Your task to perform on an android device: Search for bose soundlink mini on bestbuy.com, select the first entry, add it to the cart, then select checkout. Image 0: 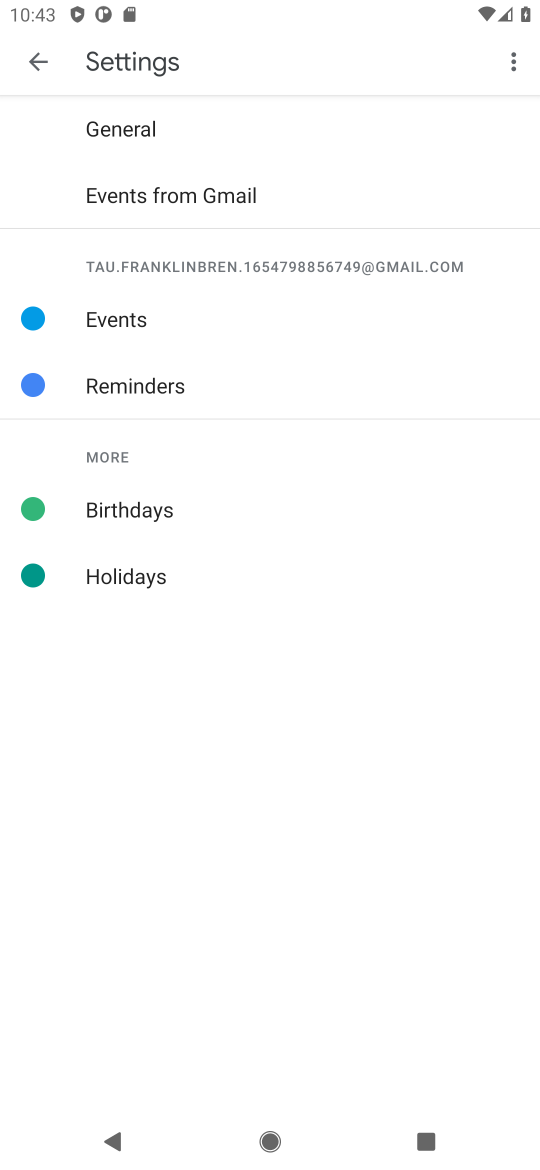
Step 0: press home button
Your task to perform on an android device: Search for bose soundlink mini on bestbuy.com, select the first entry, add it to the cart, then select checkout. Image 1: 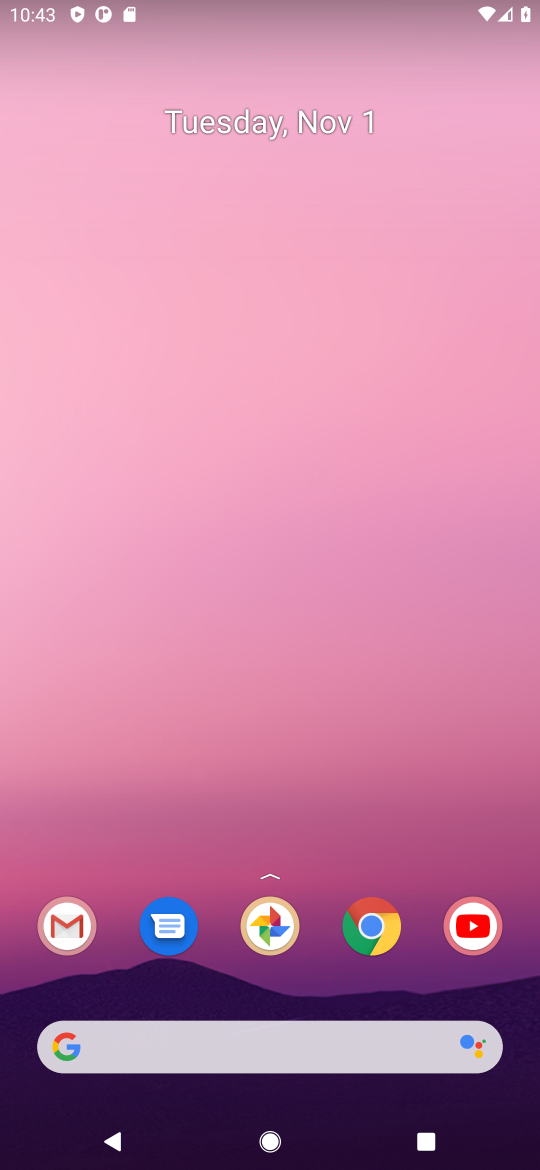
Step 1: click (361, 907)
Your task to perform on an android device: Search for bose soundlink mini on bestbuy.com, select the first entry, add it to the cart, then select checkout. Image 2: 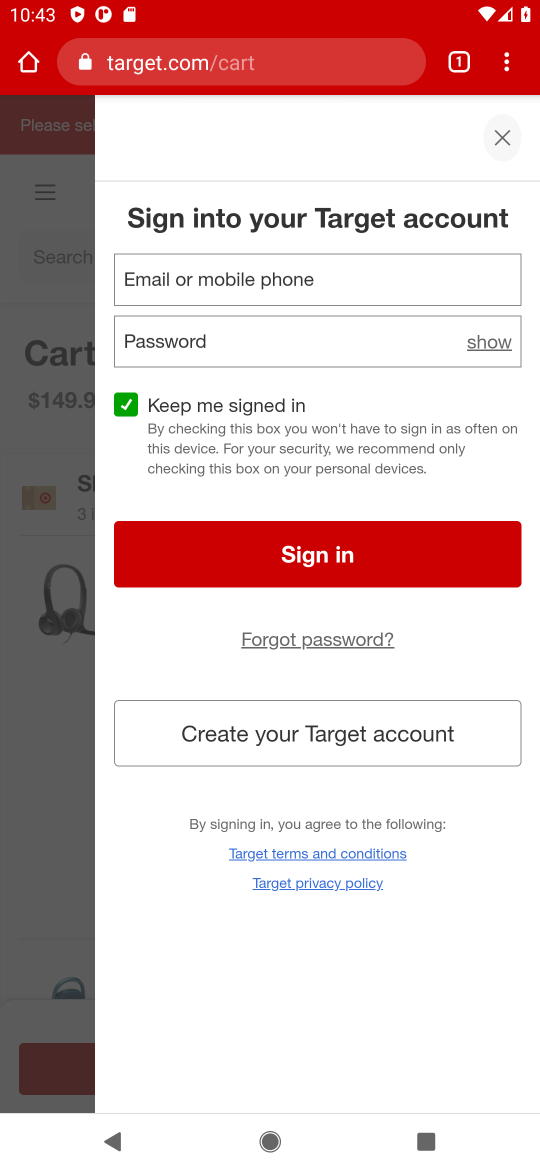
Step 2: click (237, 74)
Your task to perform on an android device: Search for bose soundlink mini on bestbuy.com, select the first entry, add it to the cart, then select checkout. Image 3: 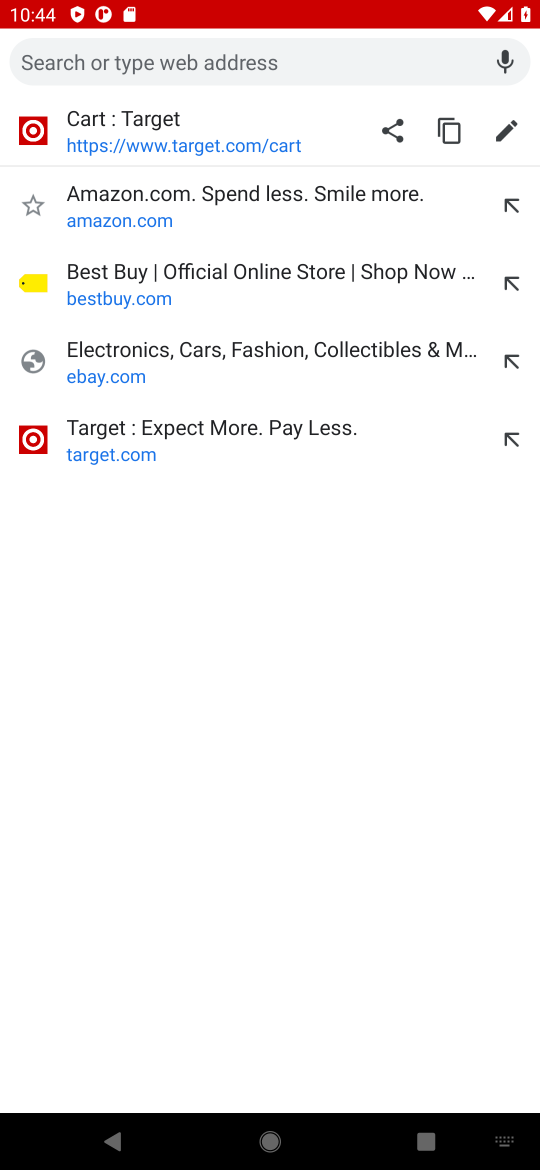
Step 3: type "bestbuy.com"
Your task to perform on an android device: Search for bose soundlink mini on bestbuy.com, select the first entry, add it to the cart, then select checkout. Image 4: 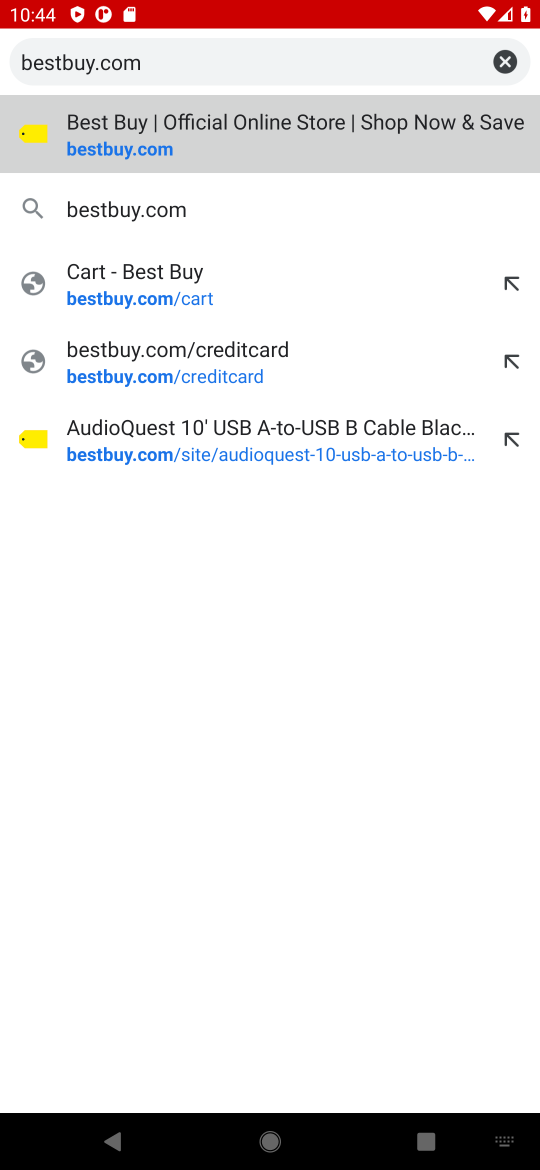
Step 4: type ""
Your task to perform on an android device: Search for bose soundlink mini on bestbuy.com, select the first entry, add it to the cart, then select checkout. Image 5: 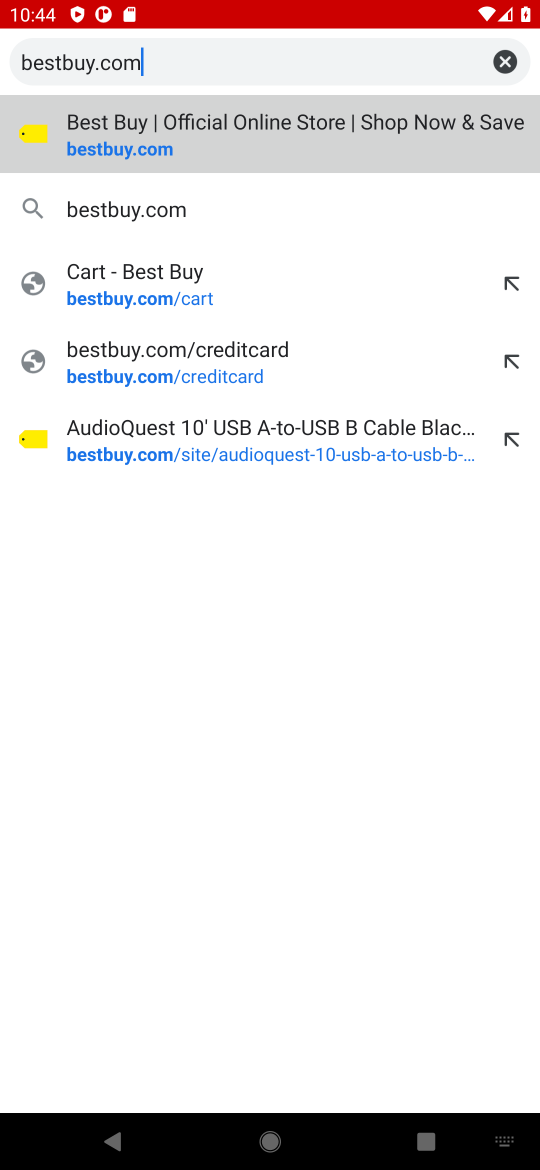
Step 5: click (134, 138)
Your task to perform on an android device: Search for bose soundlink mini on bestbuy.com, select the first entry, add it to the cart, then select checkout. Image 6: 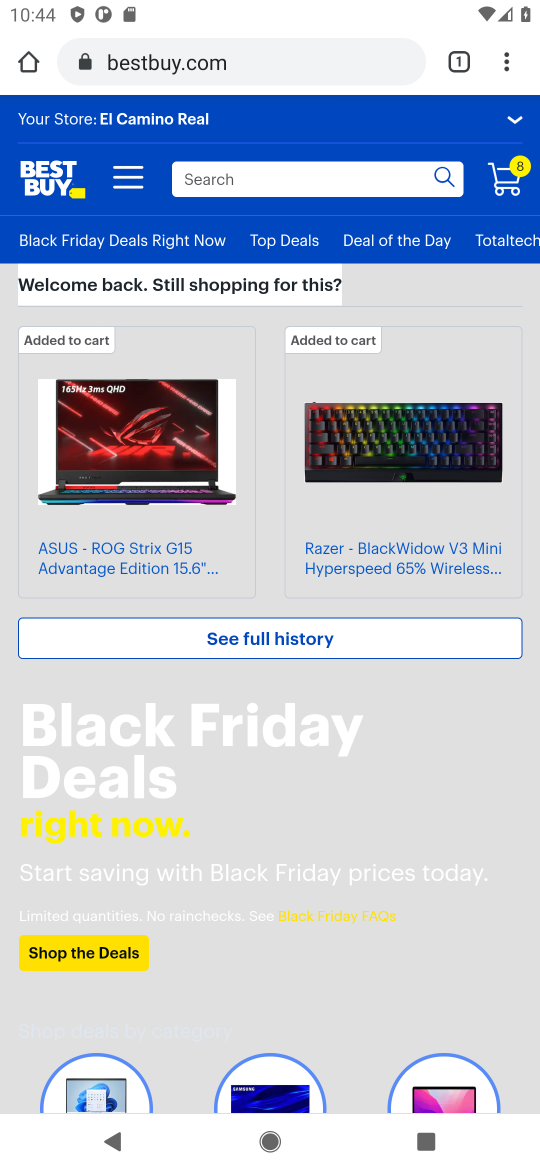
Step 6: click (212, 165)
Your task to perform on an android device: Search for bose soundlink mini on bestbuy.com, select the first entry, add it to the cart, then select checkout. Image 7: 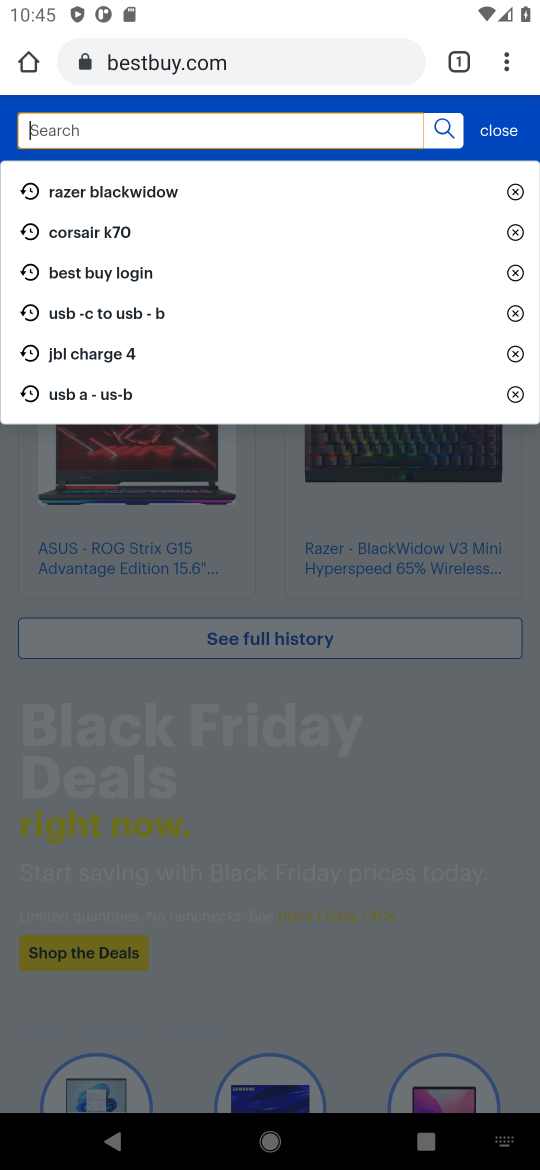
Step 7: type "bose soundlink mini"
Your task to perform on an android device: Search for bose soundlink mini on bestbuy.com, select the first entry, add it to the cart, then select checkout. Image 8: 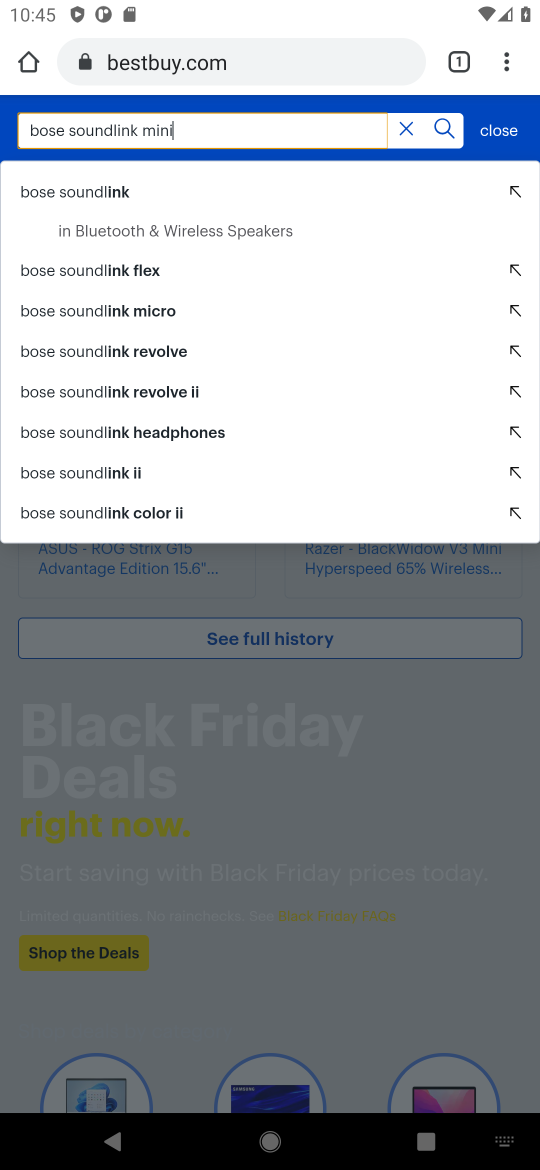
Step 8: type ""
Your task to perform on an android device: Search for bose soundlink mini on bestbuy.com, select the first entry, add it to the cart, then select checkout. Image 9: 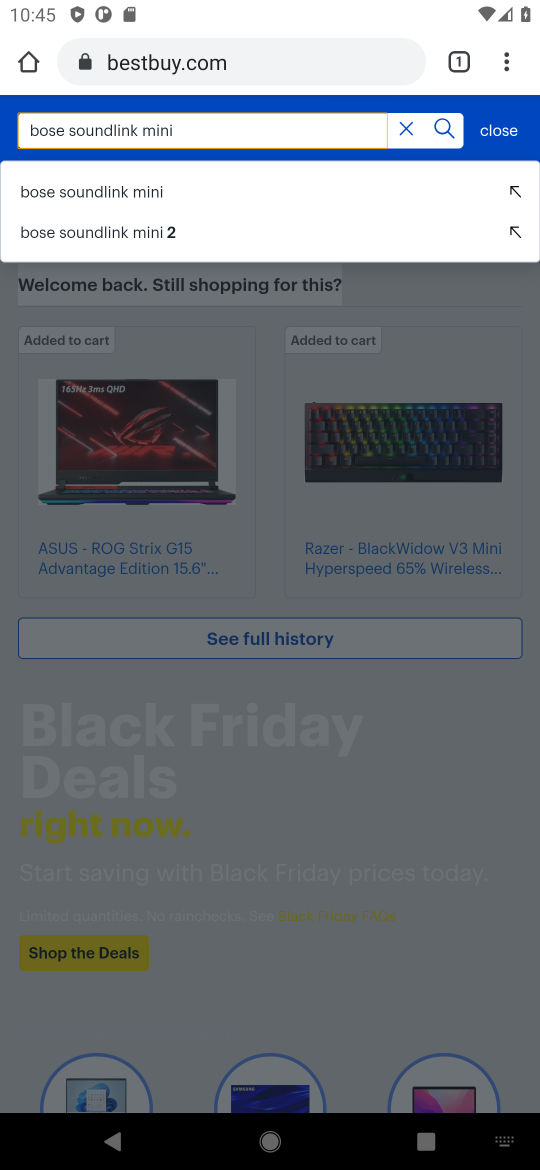
Step 9: click (168, 173)
Your task to perform on an android device: Search for bose soundlink mini on bestbuy.com, select the first entry, add it to the cart, then select checkout. Image 10: 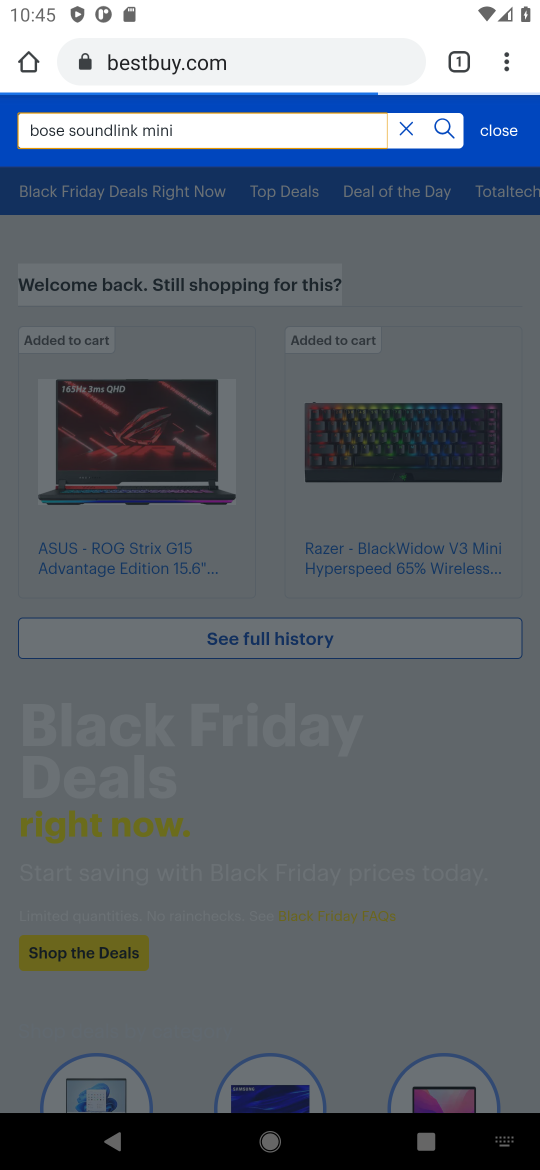
Step 10: click (69, 201)
Your task to perform on an android device: Search for bose soundlink mini on bestbuy.com, select the first entry, add it to the cart, then select checkout. Image 11: 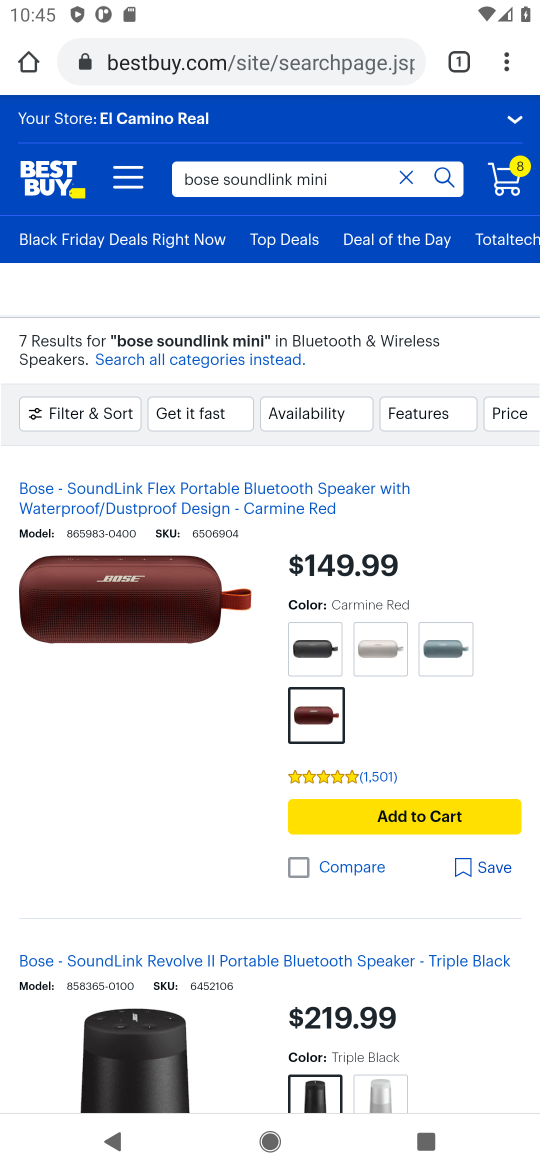
Step 11: drag from (172, 949) to (180, 461)
Your task to perform on an android device: Search for bose soundlink mini on bestbuy.com, select the first entry, add it to the cart, then select checkout. Image 12: 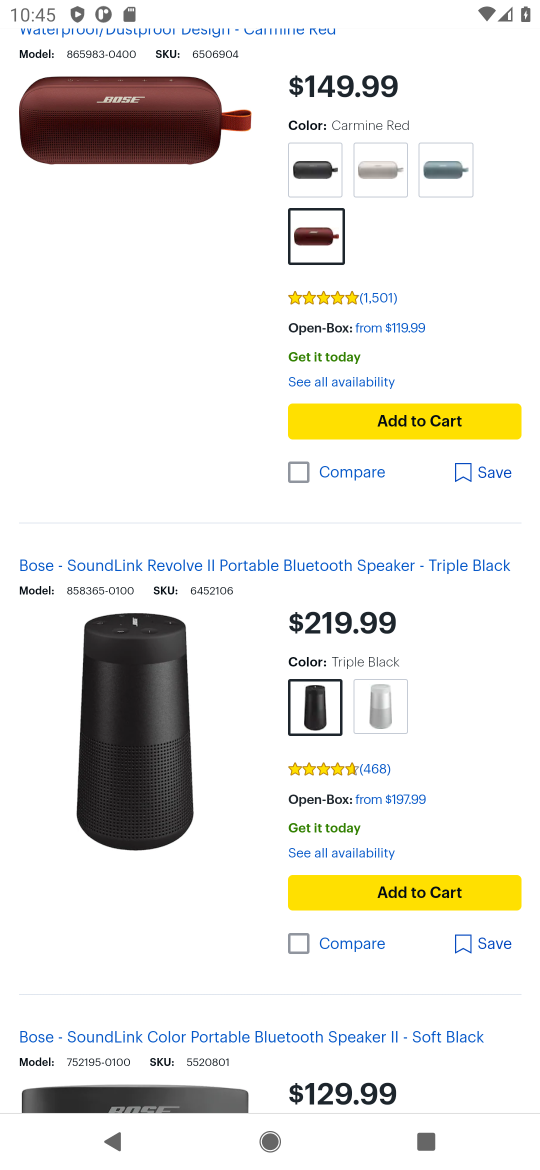
Step 12: drag from (162, 854) to (173, 781)
Your task to perform on an android device: Search for bose soundlink mini on bestbuy.com, select the first entry, add it to the cart, then select checkout. Image 13: 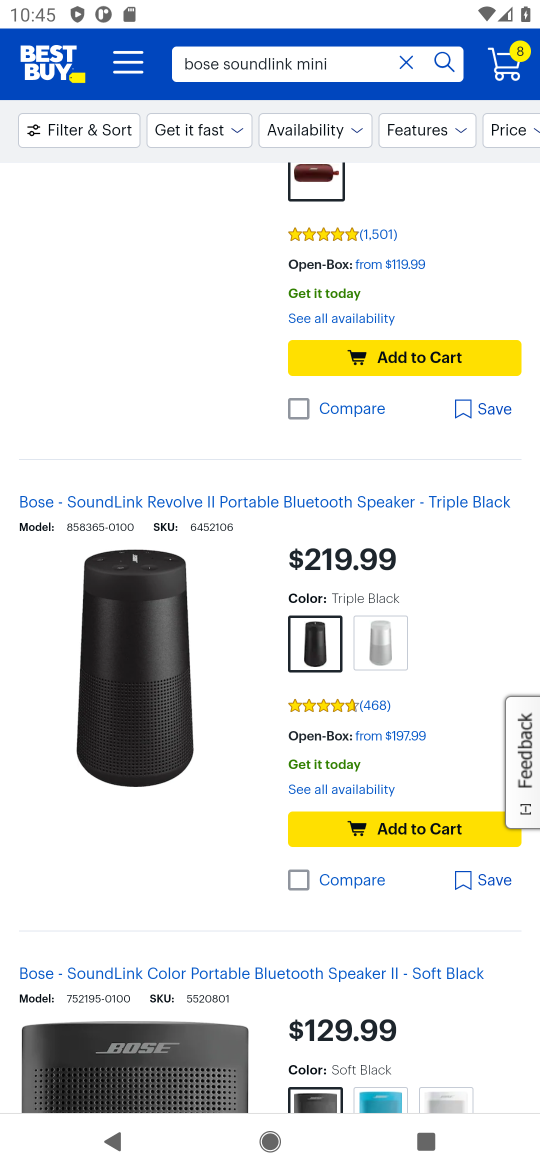
Step 13: drag from (219, 239) to (254, 776)
Your task to perform on an android device: Search for bose soundlink mini on bestbuy.com, select the first entry, add it to the cart, then select checkout. Image 14: 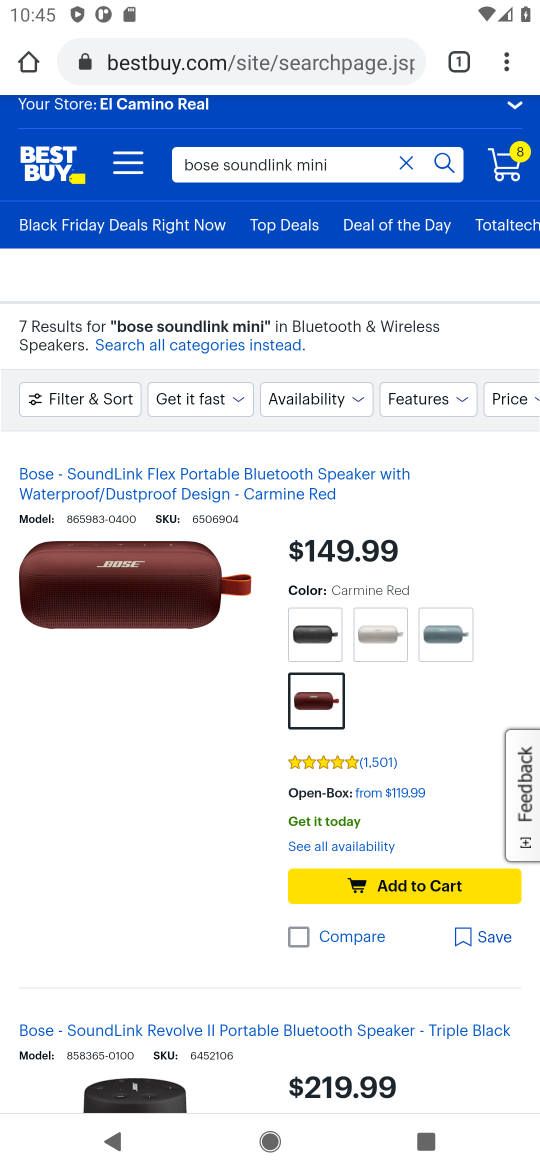
Step 14: click (141, 559)
Your task to perform on an android device: Search for bose soundlink mini on bestbuy.com, select the first entry, add it to the cart, then select checkout. Image 15: 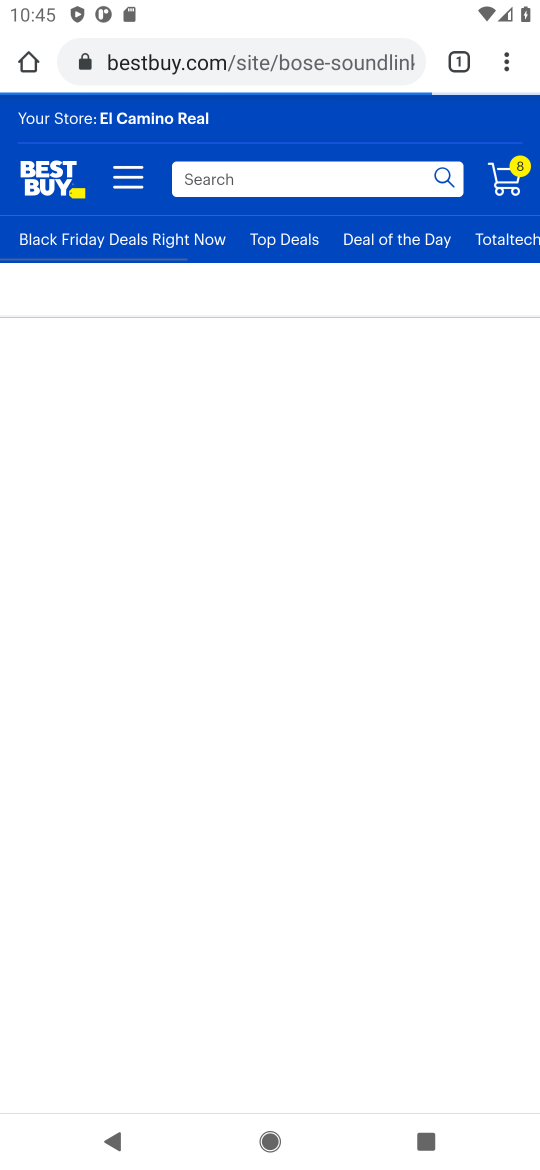
Step 15: click (69, 604)
Your task to perform on an android device: Search for bose soundlink mini on bestbuy.com, select the first entry, add it to the cart, then select checkout. Image 16: 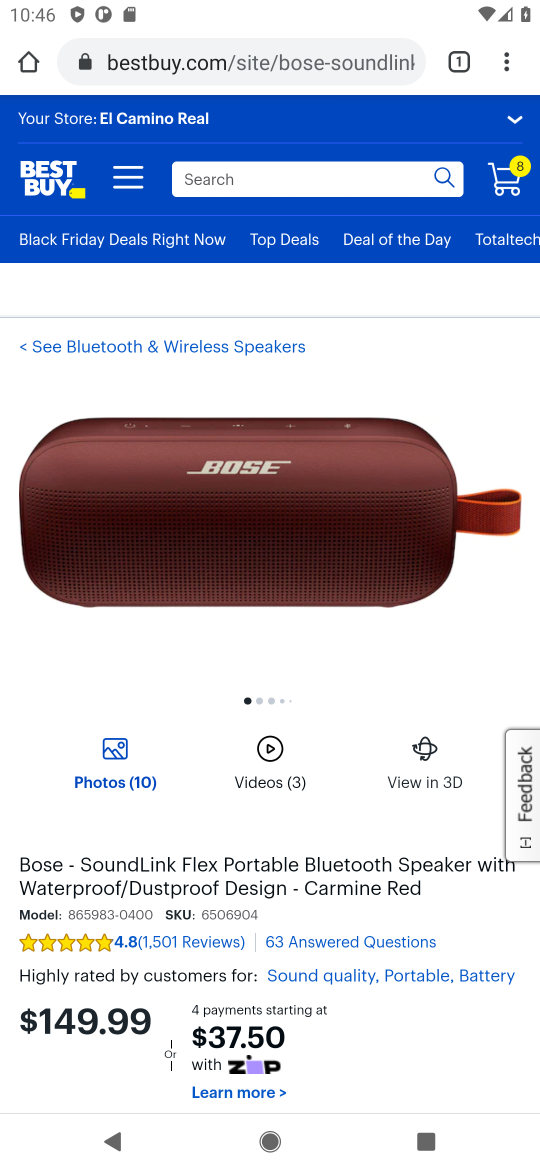
Step 16: drag from (302, 714) to (325, 295)
Your task to perform on an android device: Search for bose soundlink mini on bestbuy.com, select the first entry, add it to the cart, then select checkout. Image 17: 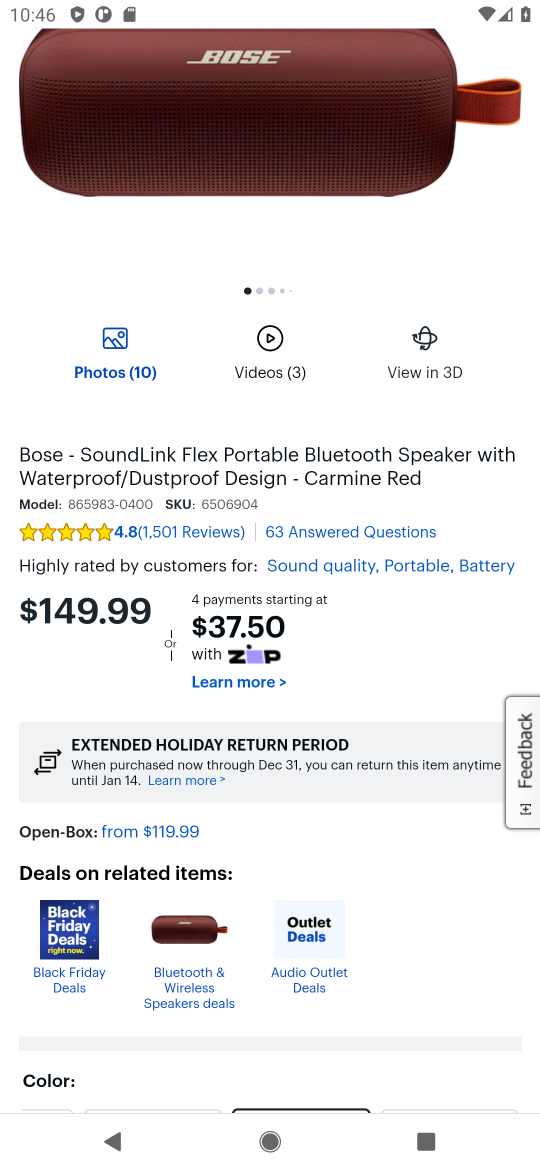
Step 17: drag from (316, 938) to (355, 288)
Your task to perform on an android device: Search for bose soundlink mini on bestbuy.com, select the first entry, add it to the cart, then select checkout. Image 18: 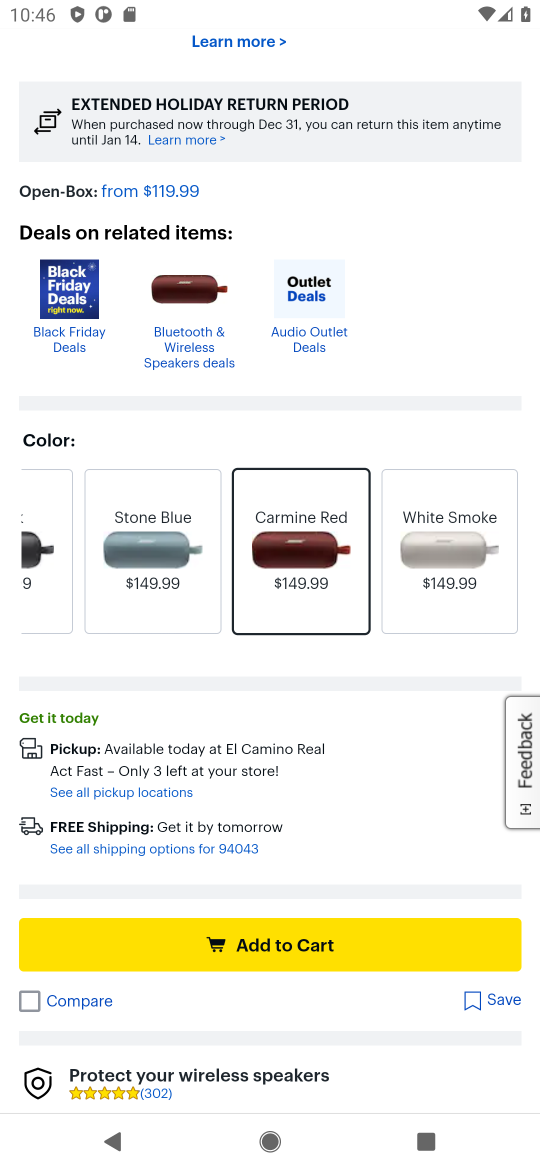
Step 18: click (278, 937)
Your task to perform on an android device: Search for bose soundlink mini on bestbuy.com, select the first entry, add it to the cart, then select checkout. Image 19: 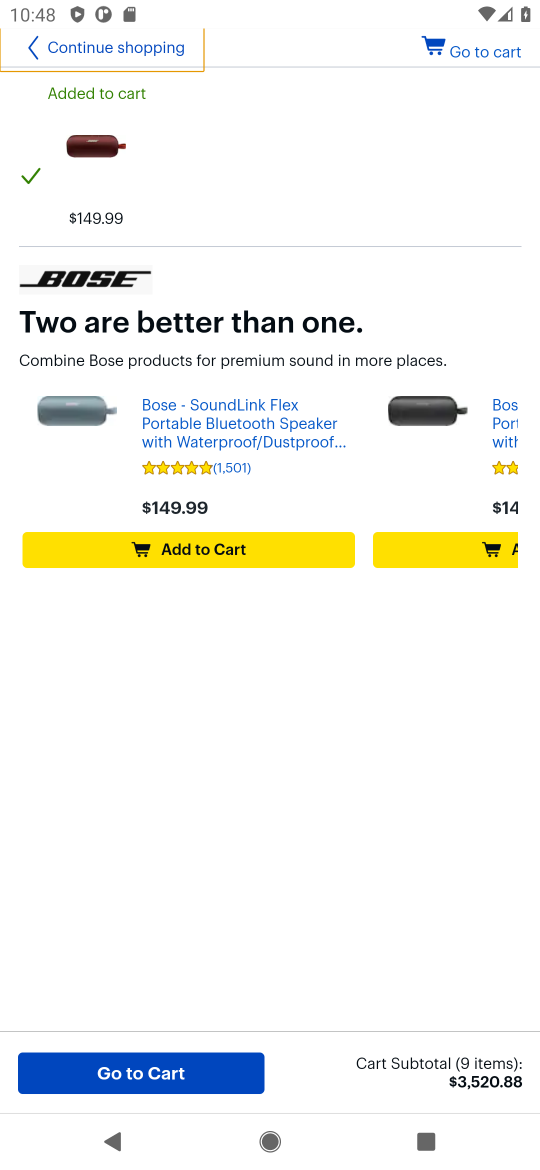
Step 19: click (174, 1074)
Your task to perform on an android device: Search for bose soundlink mini on bestbuy.com, select the first entry, add it to the cart, then select checkout. Image 20: 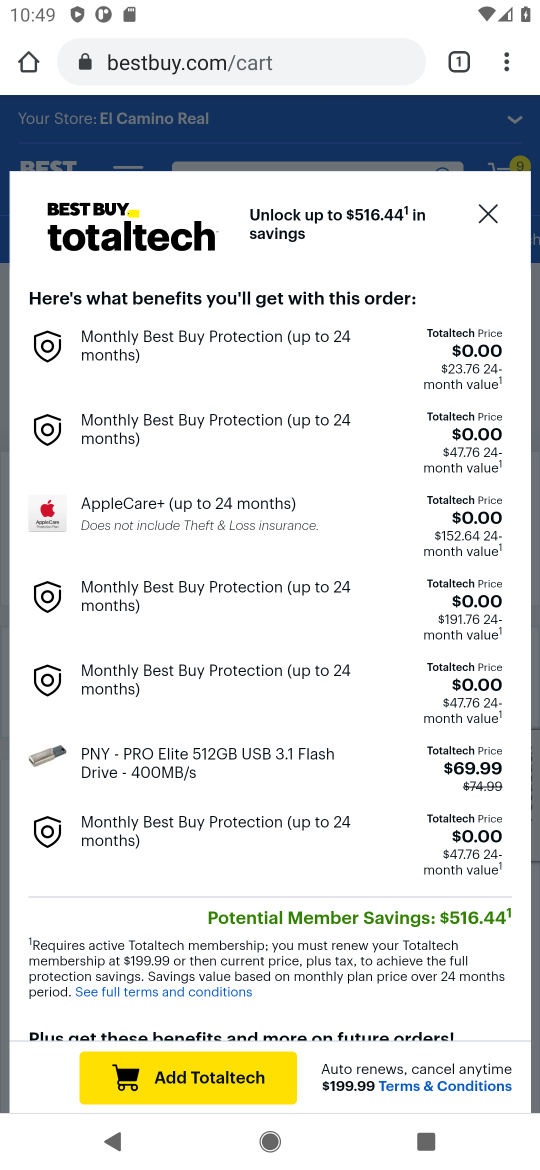
Step 20: task complete